Your task to perform on an android device: open app "Fetch Rewards" (install if not already installed) and enter user name: "Westwood@yahoo.com" and password: "qualifying" Image 0: 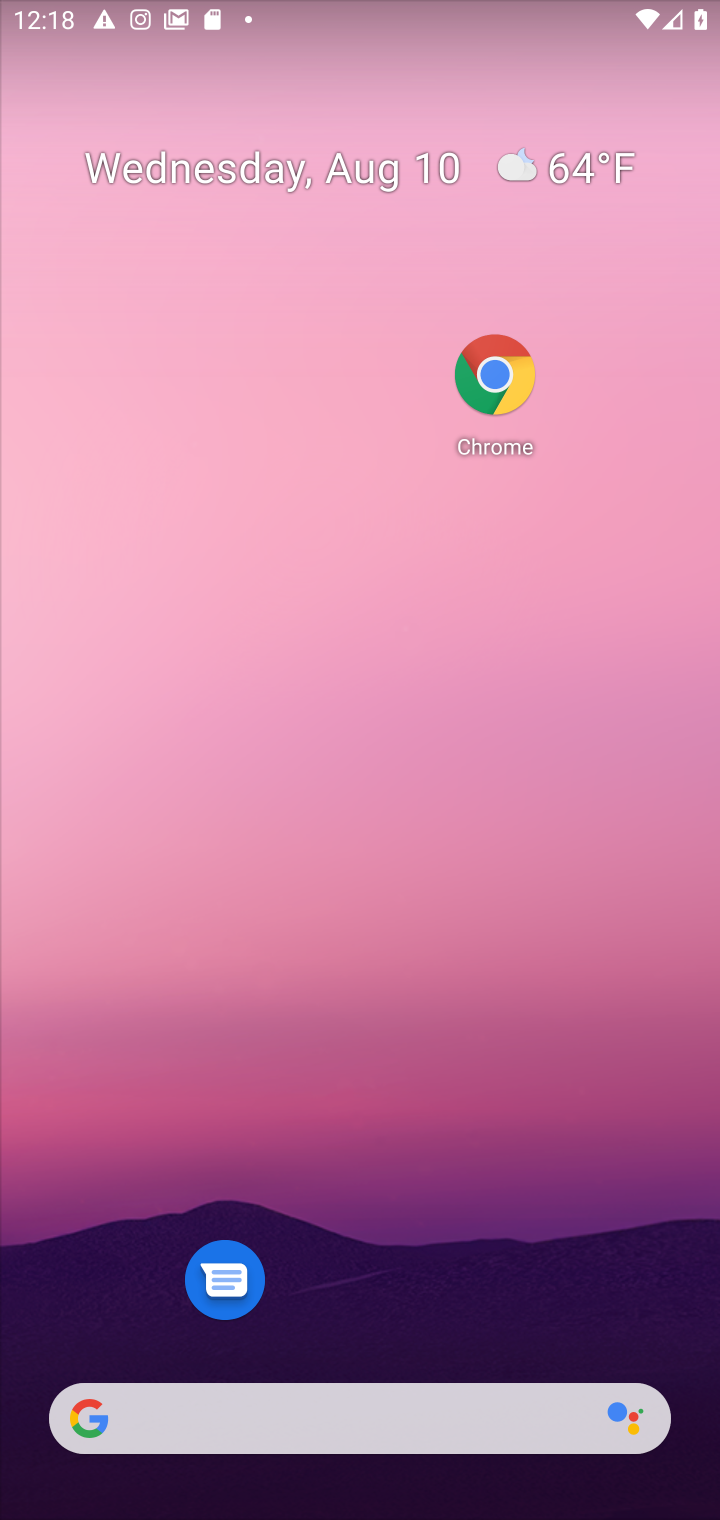
Step 0: press back button
Your task to perform on an android device: open app "Fetch Rewards" (install if not already installed) and enter user name: "Westwood@yahoo.com" and password: "qualifying" Image 1: 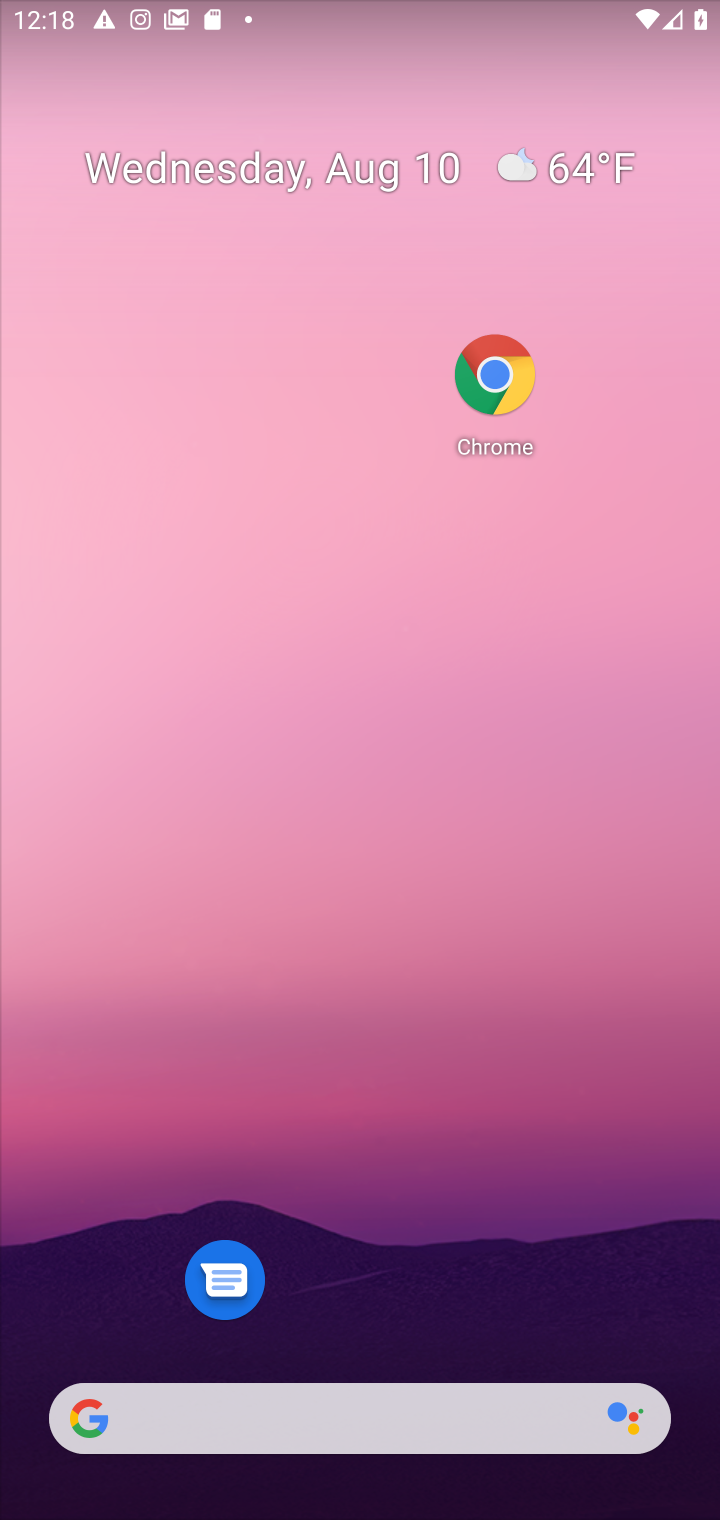
Step 1: drag from (409, 1191) to (378, 623)
Your task to perform on an android device: open app "Fetch Rewards" (install if not already installed) and enter user name: "Westwood@yahoo.com" and password: "qualifying" Image 2: 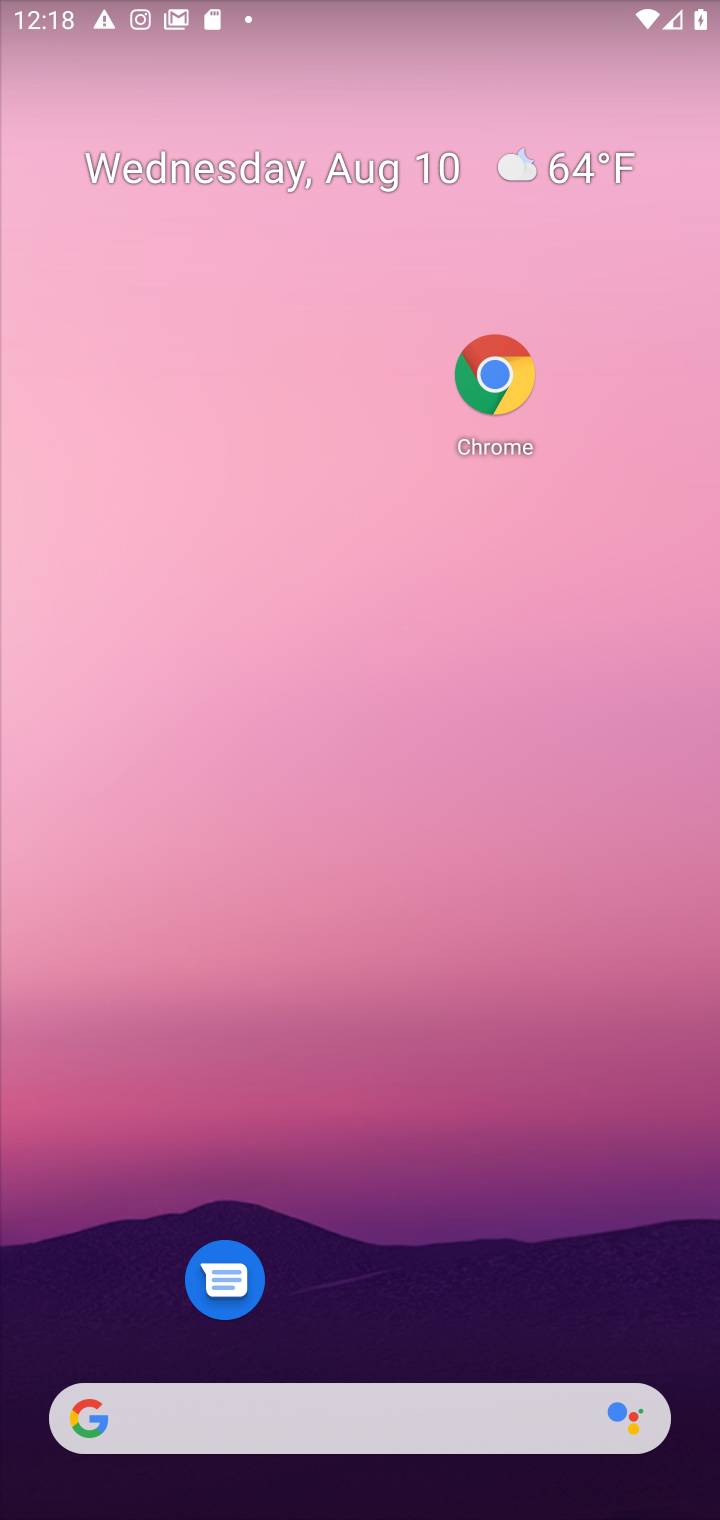
Step 2: drag from (367, 1353) to (344, 477)
Your task to perform on an android device: open app "Fetch Rewards" (install if not already installed) and enter user name: "Westwood@yahoo.com" and password: "qualifying" Image 3: 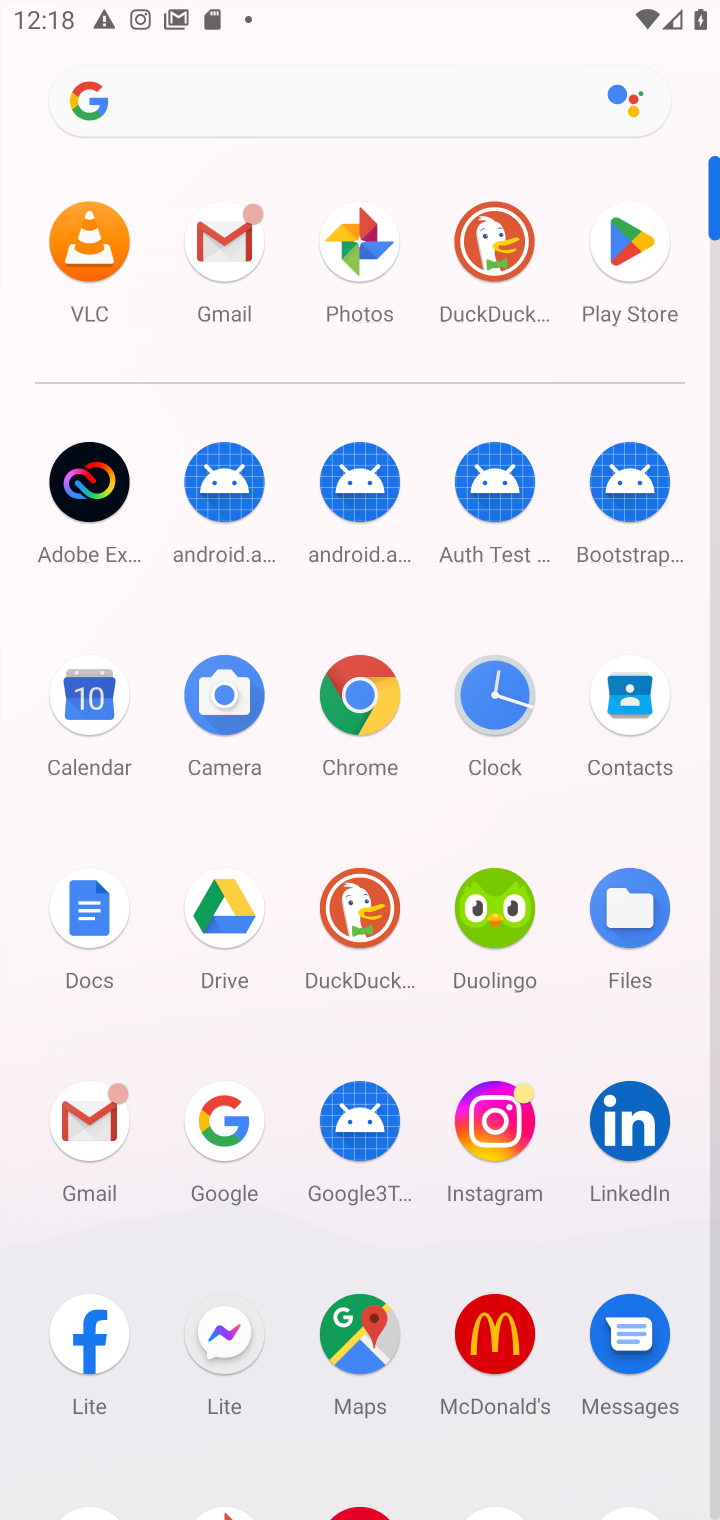
Step 3: click (618, 295)
Your task to perform on an android device: open app "Fetch Rewards" (install if not already installed) and enter user name: "Westwood@yahoo.com" and password: "qualifying" Image 4: 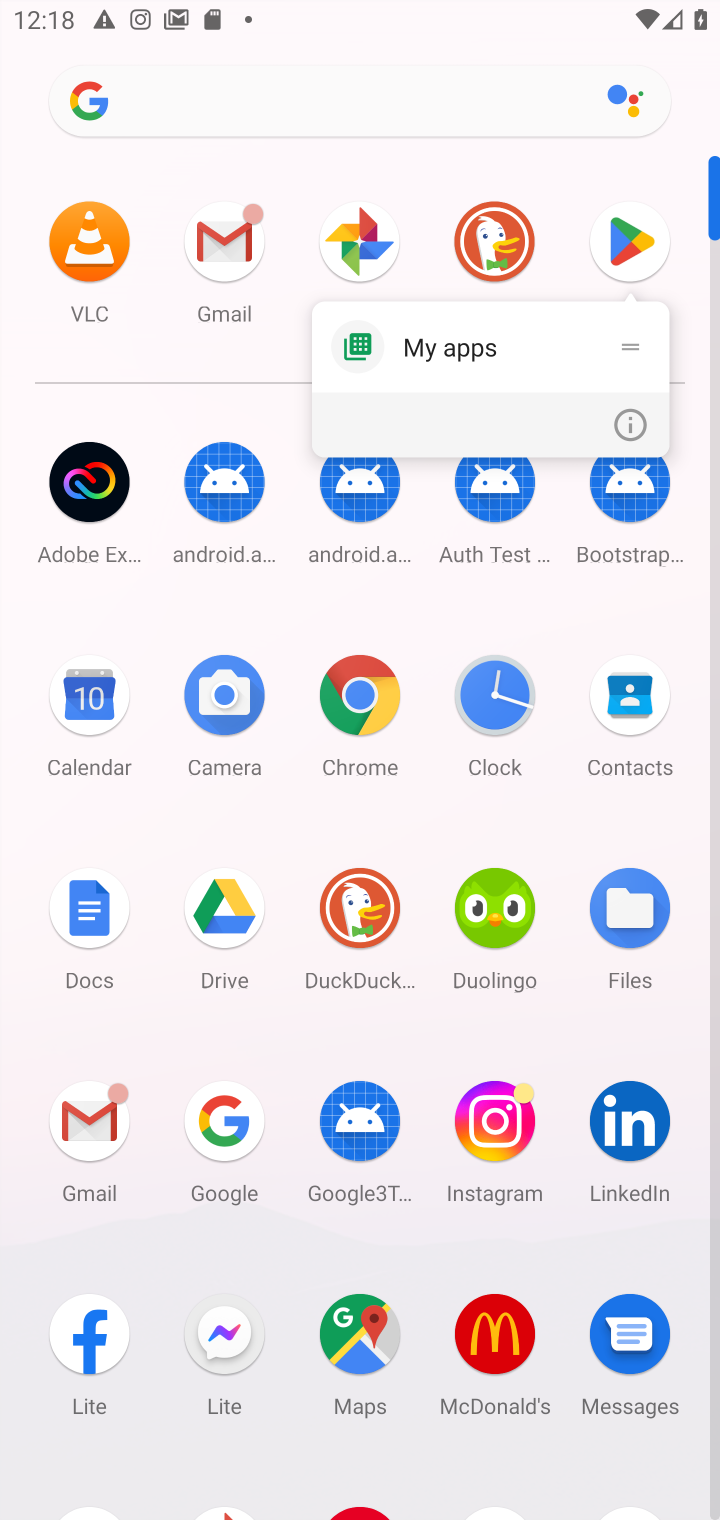
Step 4: click (623, 254)
Your task to perform on an android device: open app "Fetch Rewards" (install if not already installed) and enter user name: "Westwood@yahoo.com" and password: "qualifying" Image 5: 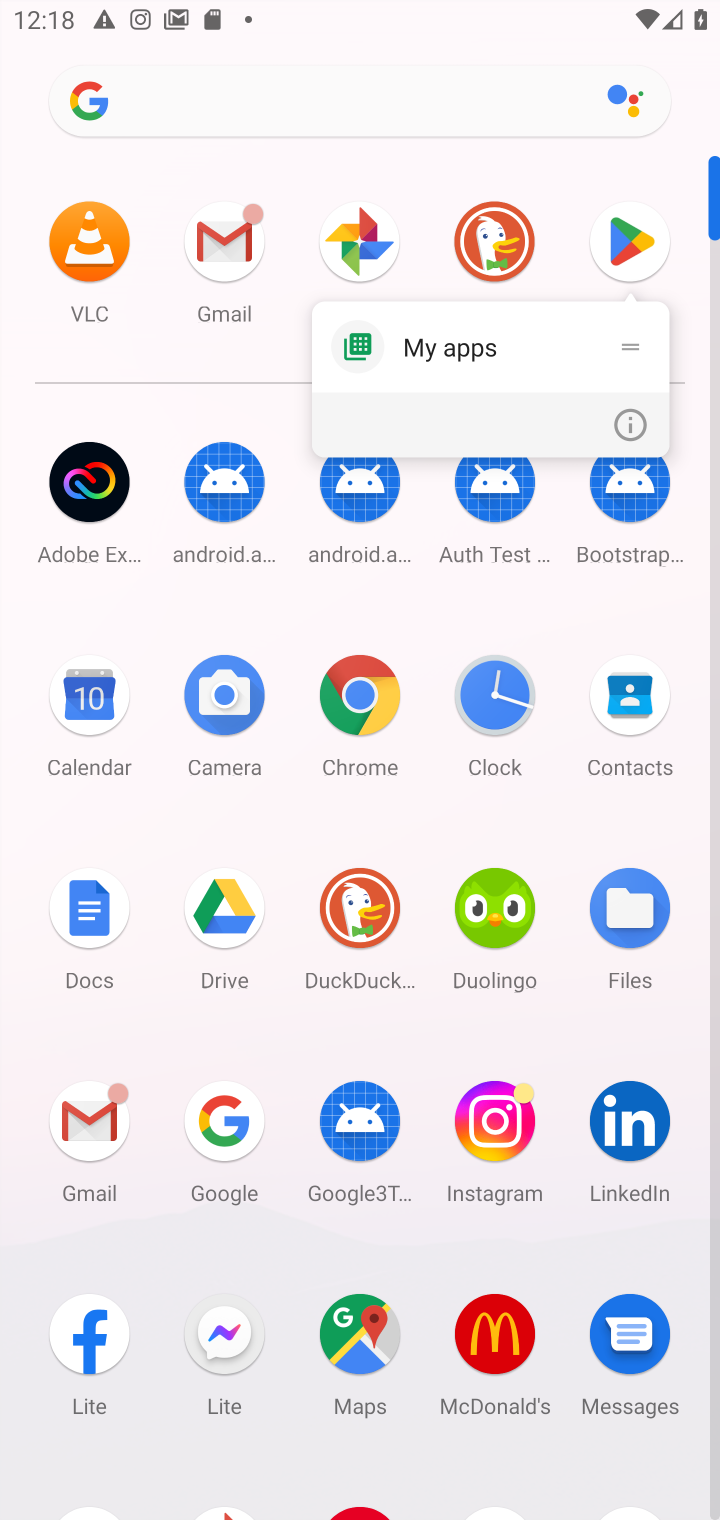
Step 5: click (623, 254)
Your task to perform on an android device: open app "Fetch Rewards" (install if not already installed) and enter user name: "Westwood@yahoo.com" and password: "qualifying" Image 6: 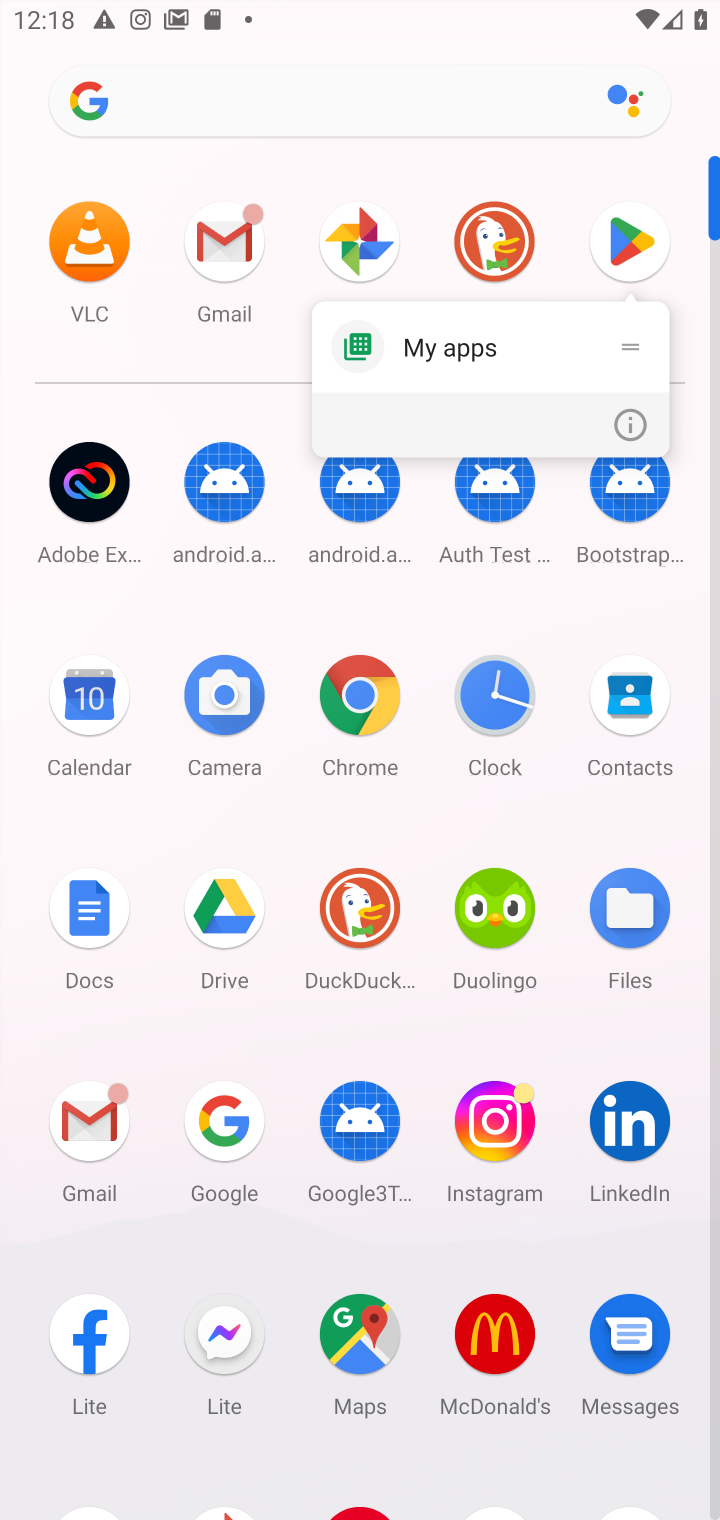
Step 6: click (634, 232)
Your task to perform on an android device: open app "Fetch Rewards" (install if not already installed) and enter user name: "Westwood@yahoo.com" and password: "qualifying" Image 7: 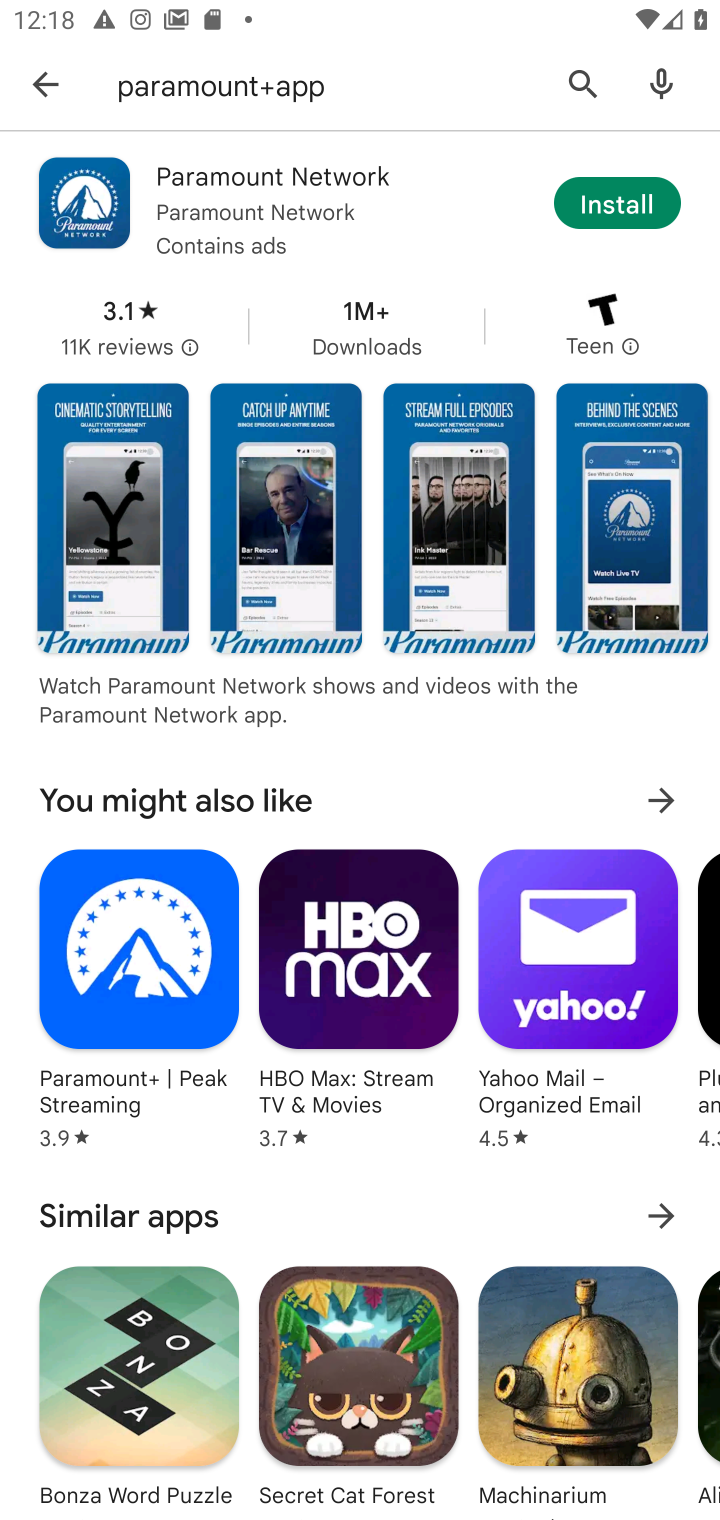
Step 7: click (23, 97)
Your task to perform on an android device: open app "Fetch Rewards" (install if not already installed) and enter user name: "Westwood@yahoo.com" and password: "qualifying" Image 8: 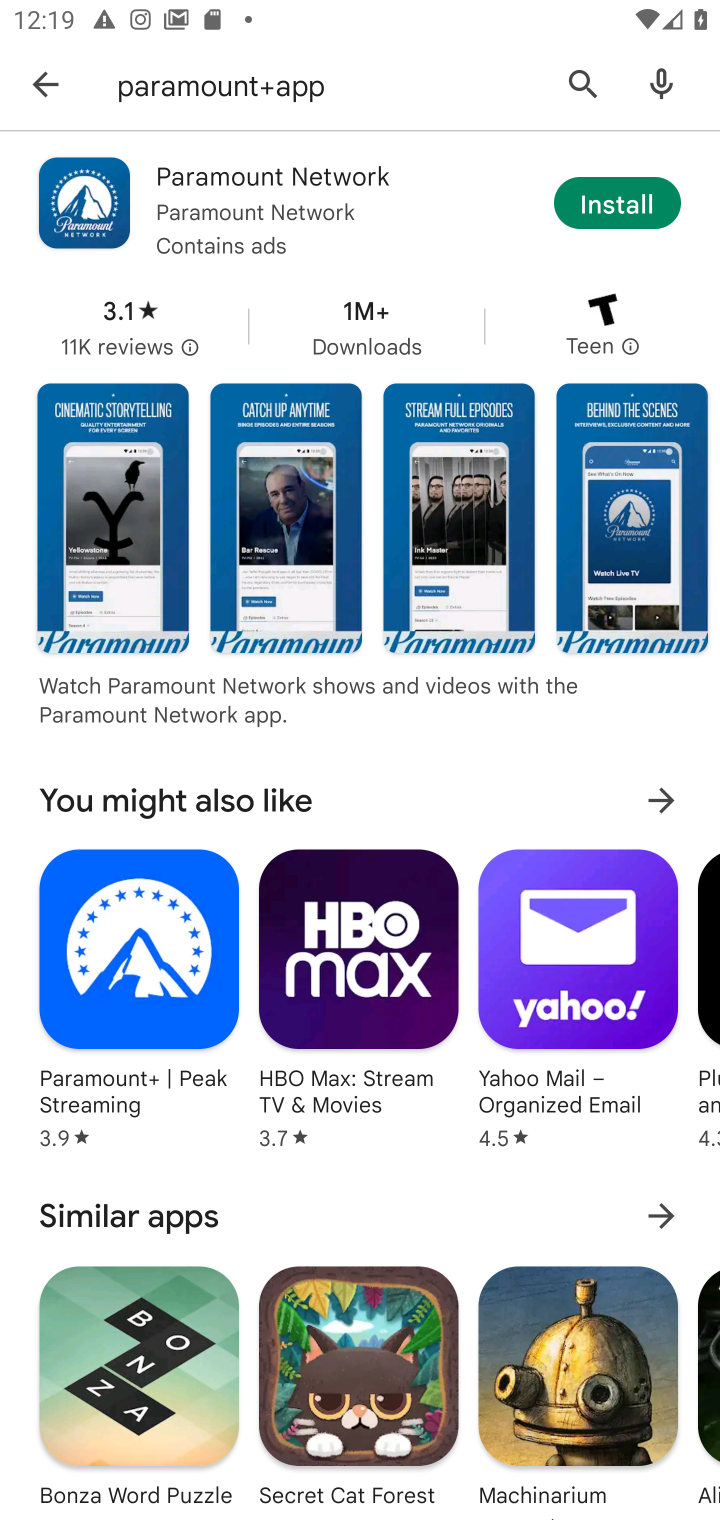
Step 8: click (45, 93)
Your task to perform on an android device: open app "Fetch Rewards" (install if not already installed) and enter user name: "Westwood@yahoo.com" and password: "qualifying" Image 9: 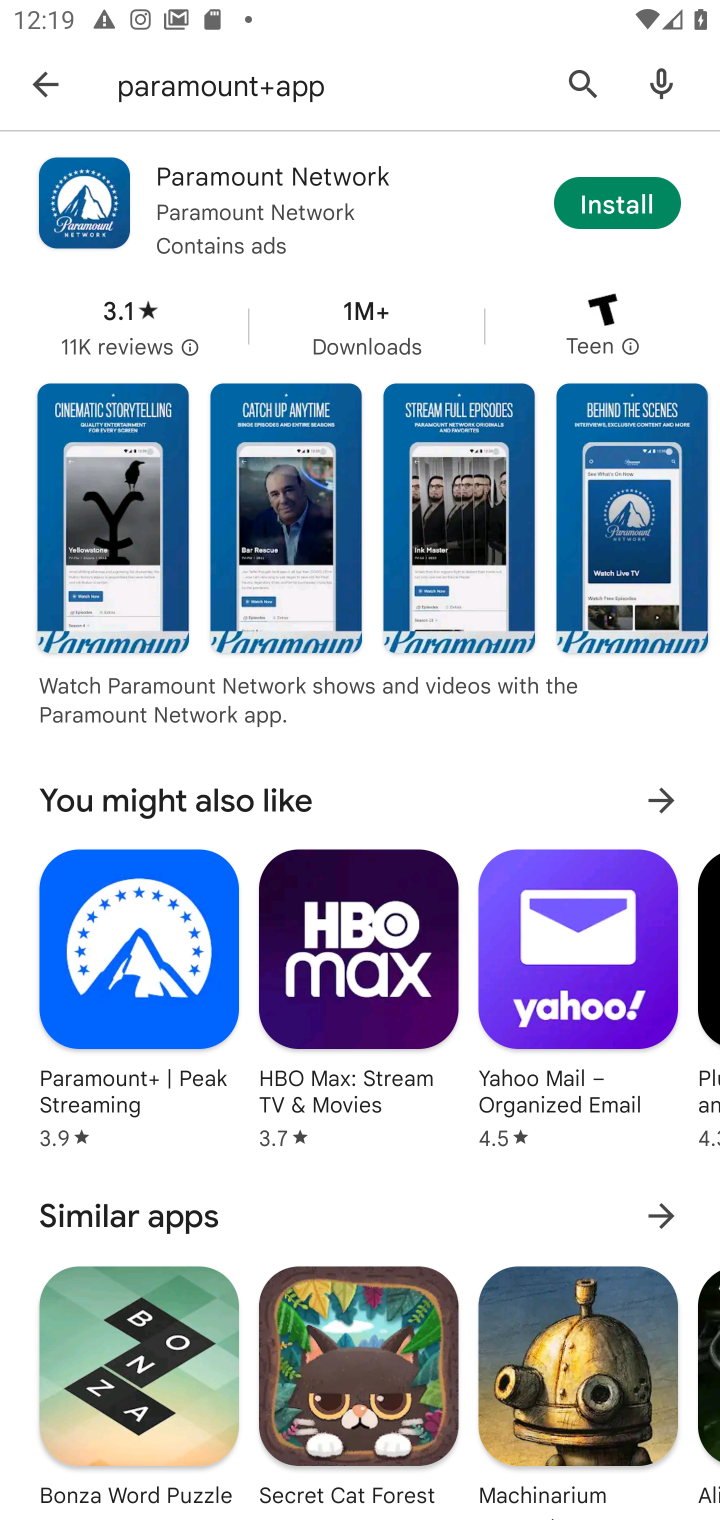
Step 9: click (569, 88)
Your task to perform on an android device: open app "Fetch Rewards" (install if not already installed) and enter user name: "Westwood@yahoo.com" and password: "qualifying" Image 10: 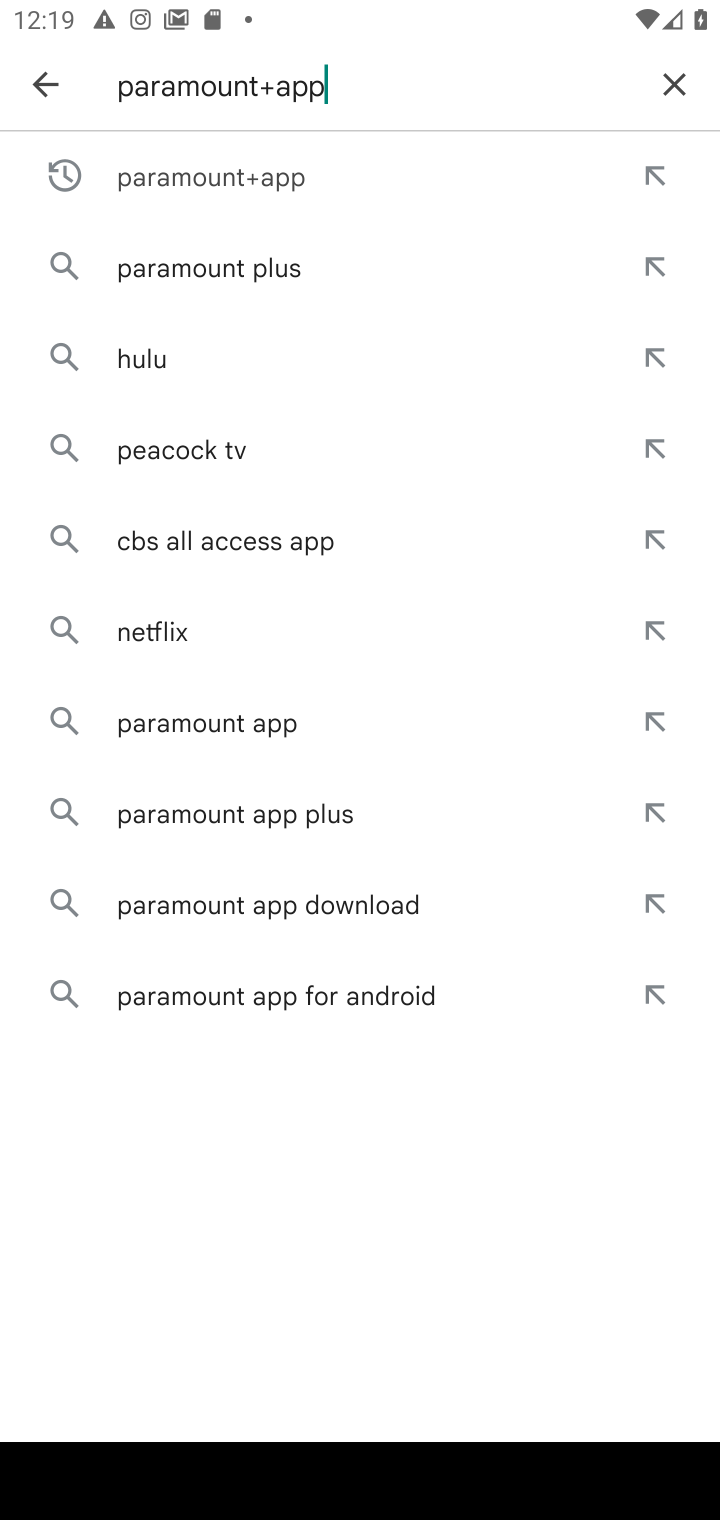
Step 10: click (670, 81)
Your task to perform on an android device: open app "Fetch Rewards" (install if not already installed) and enter user name: "Westwood@yahoo.com" and password: "qualifying" Image 11: 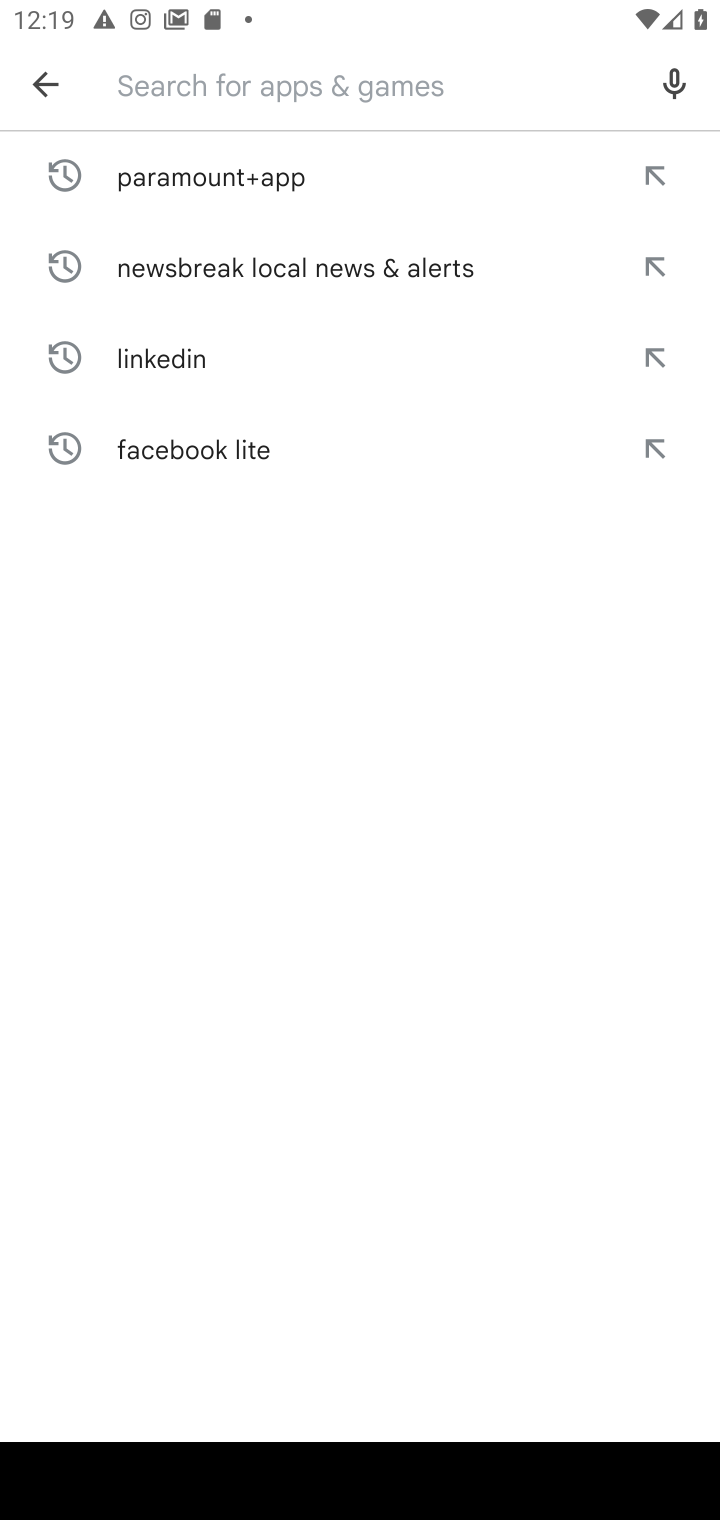
Step 11: type "Fetch Rewards"
Your task to perform on an android device: open app "Fetch Rewards" (install if not already installed) and enter user name: "Westwood@yahoo.com" and password: "qualifying" Image 12: 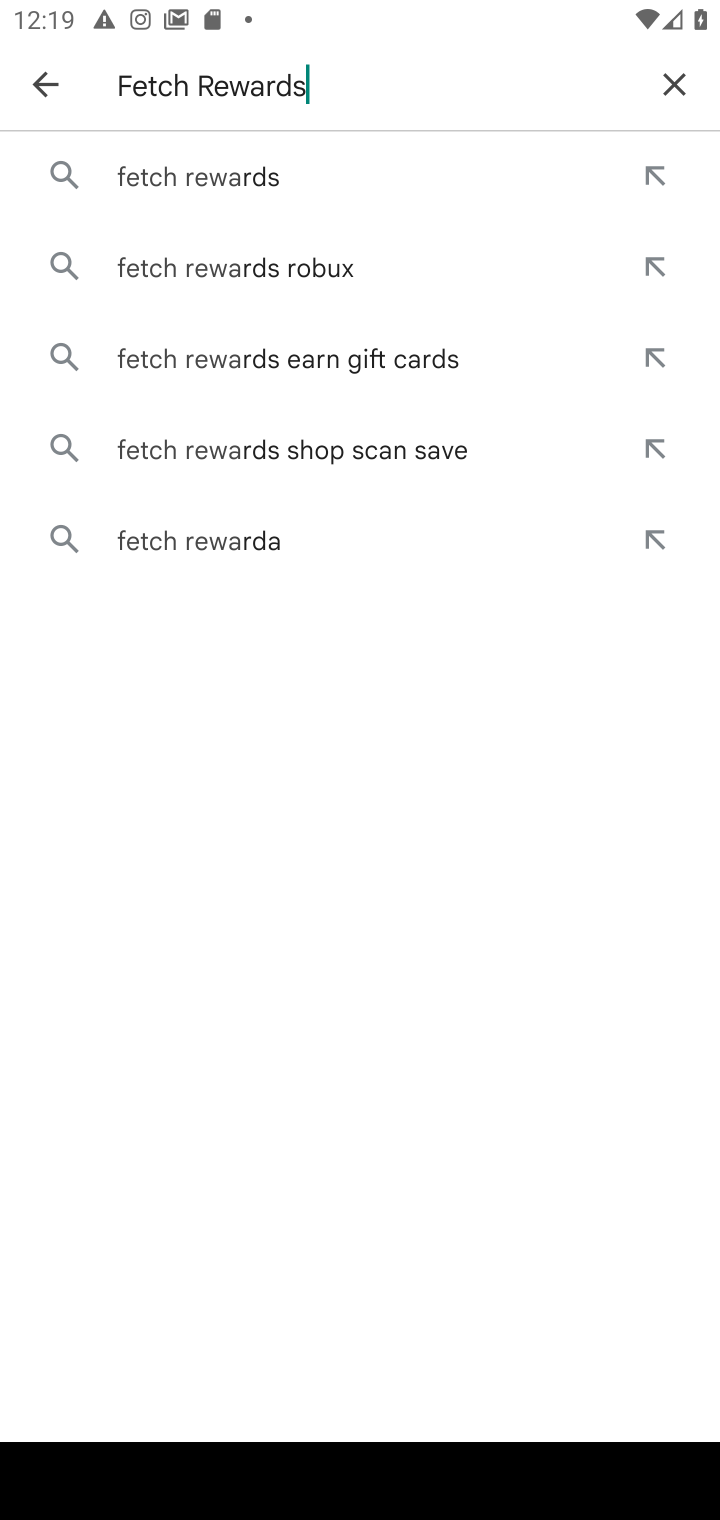
Step 12: type ""
Your task to perform on an android device: open app "Fetch Rewards" (install if not already installed) and enter user name: "Westwood@yahoo.com" and password: "qualifying" Image 13: 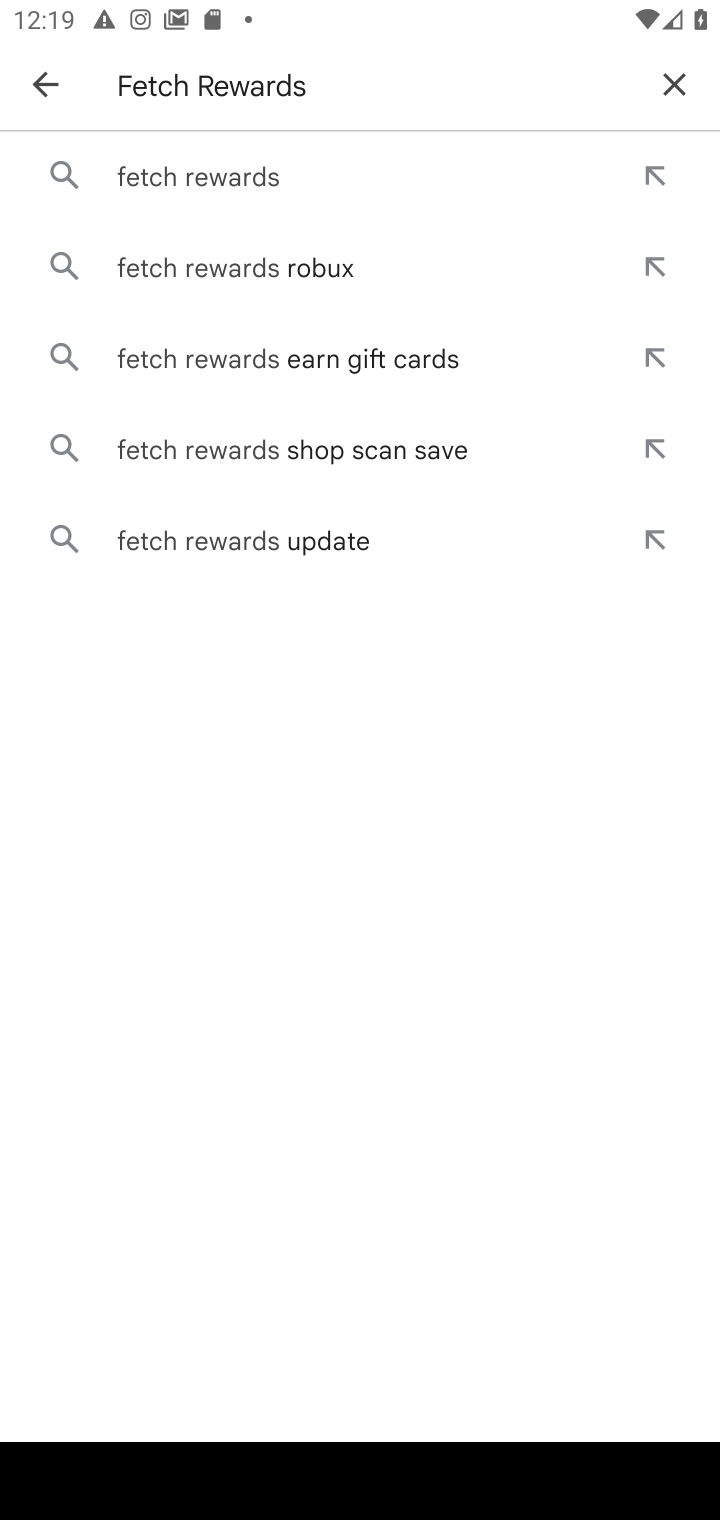
Step 13: click (255, 159)
Your task to perform on an android device: open app "Fetch Rewards" (install if not already installed) and enter user name: "Westwood@yahoo.com" and password: "qualifying" Image 14: 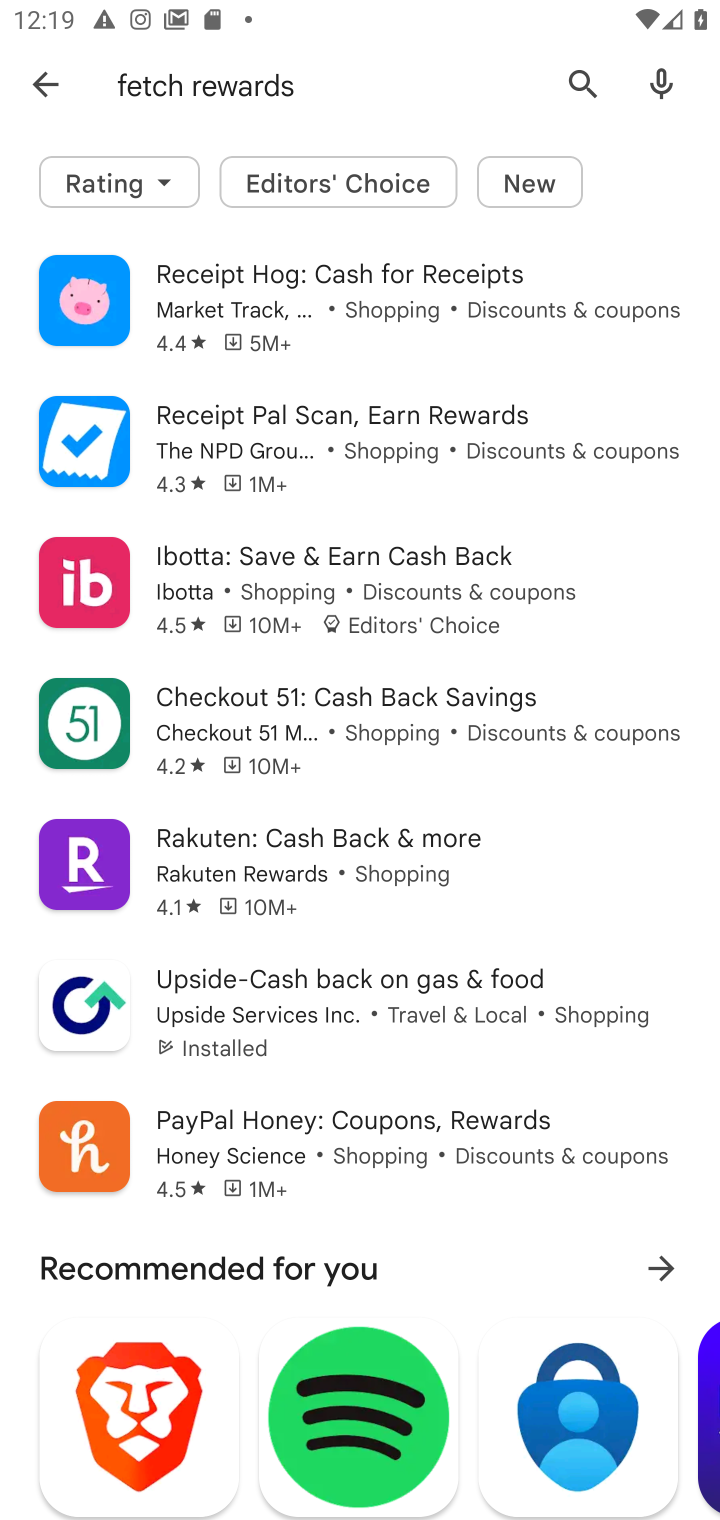
Step 14: task complete